Your task to perform on an android device: remove spam from my inbox in the gmail app Image 0: 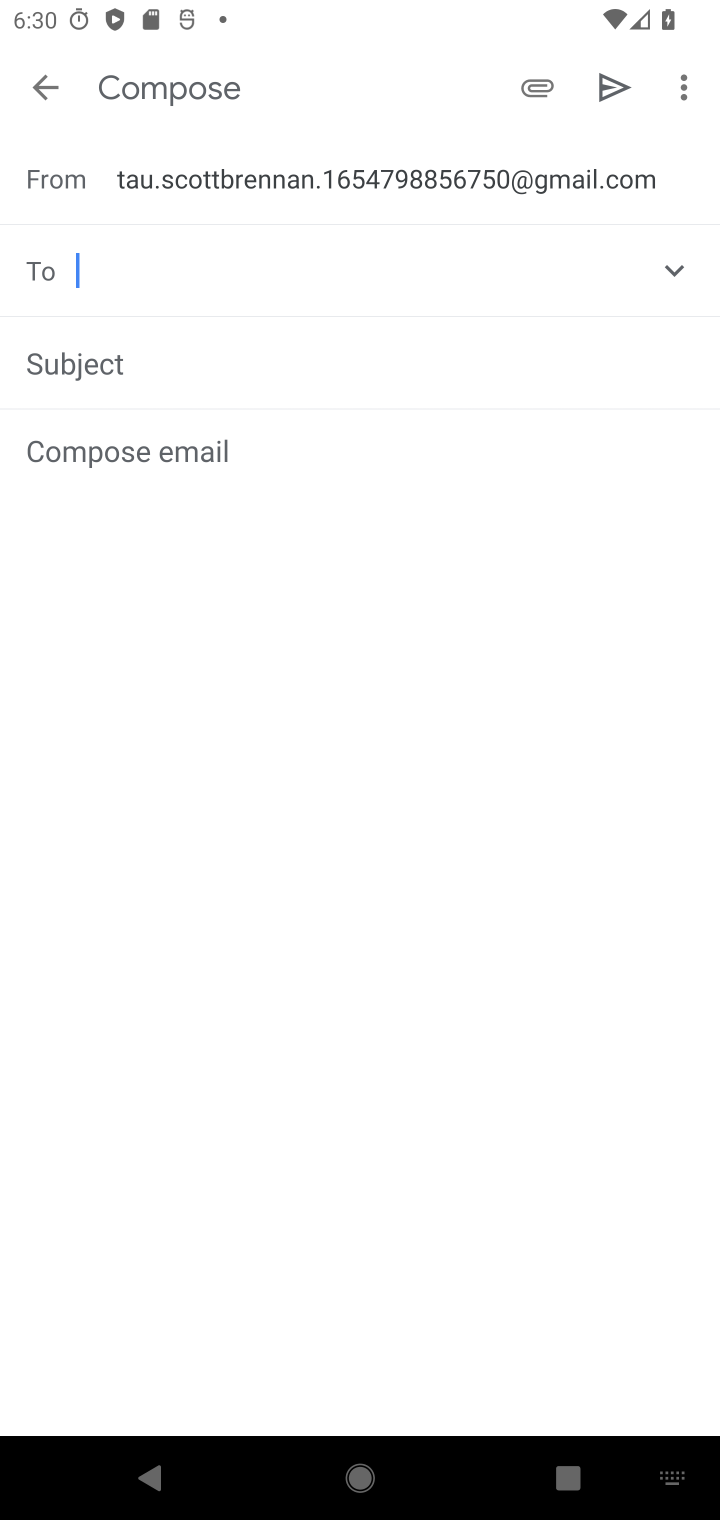
Step 0: press home button
Your task to perform on an android device: remove spam from my inbox in the gmail app Image 1: 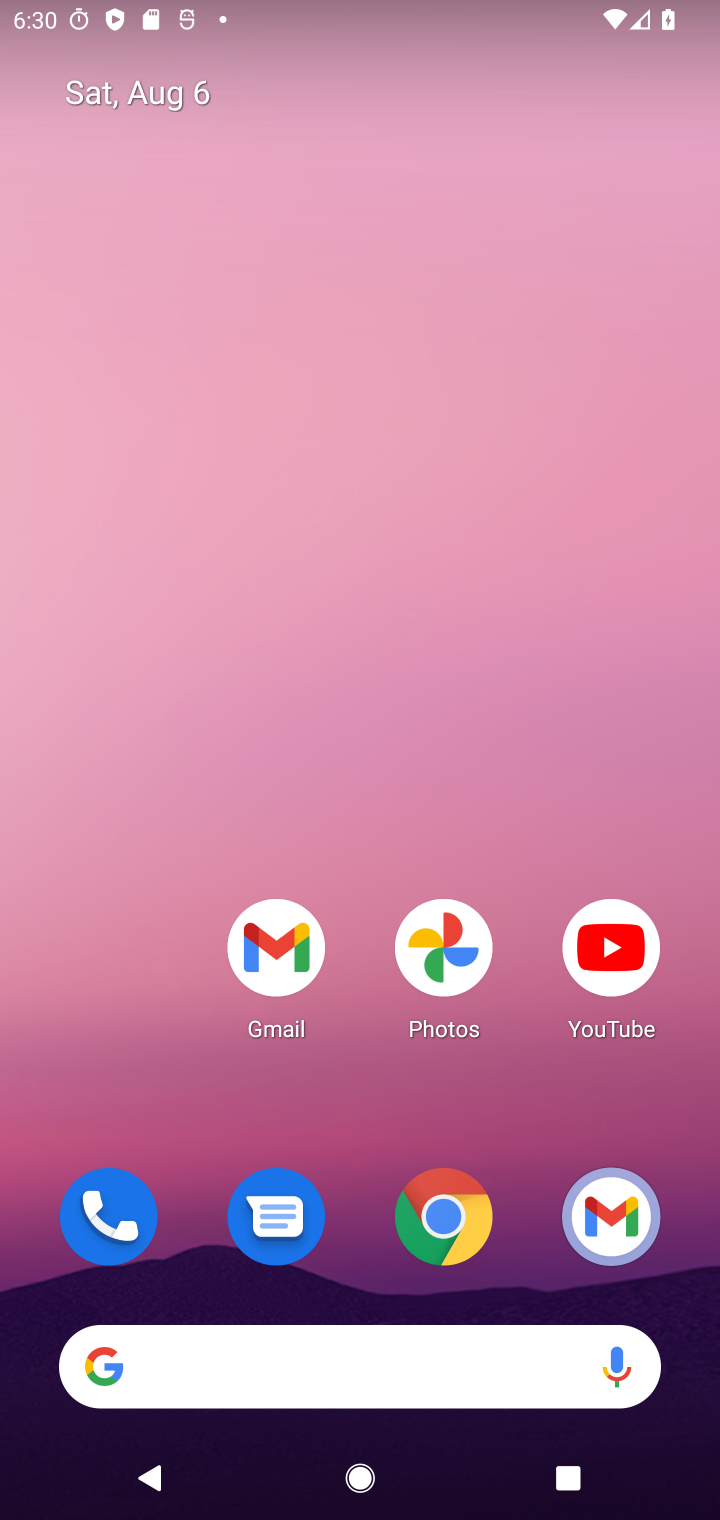
Step 1: drag from (380, 1115) to (365, 242)
Your task to perform on an android device: remove spam from my inbox in the gmail app Image 2: 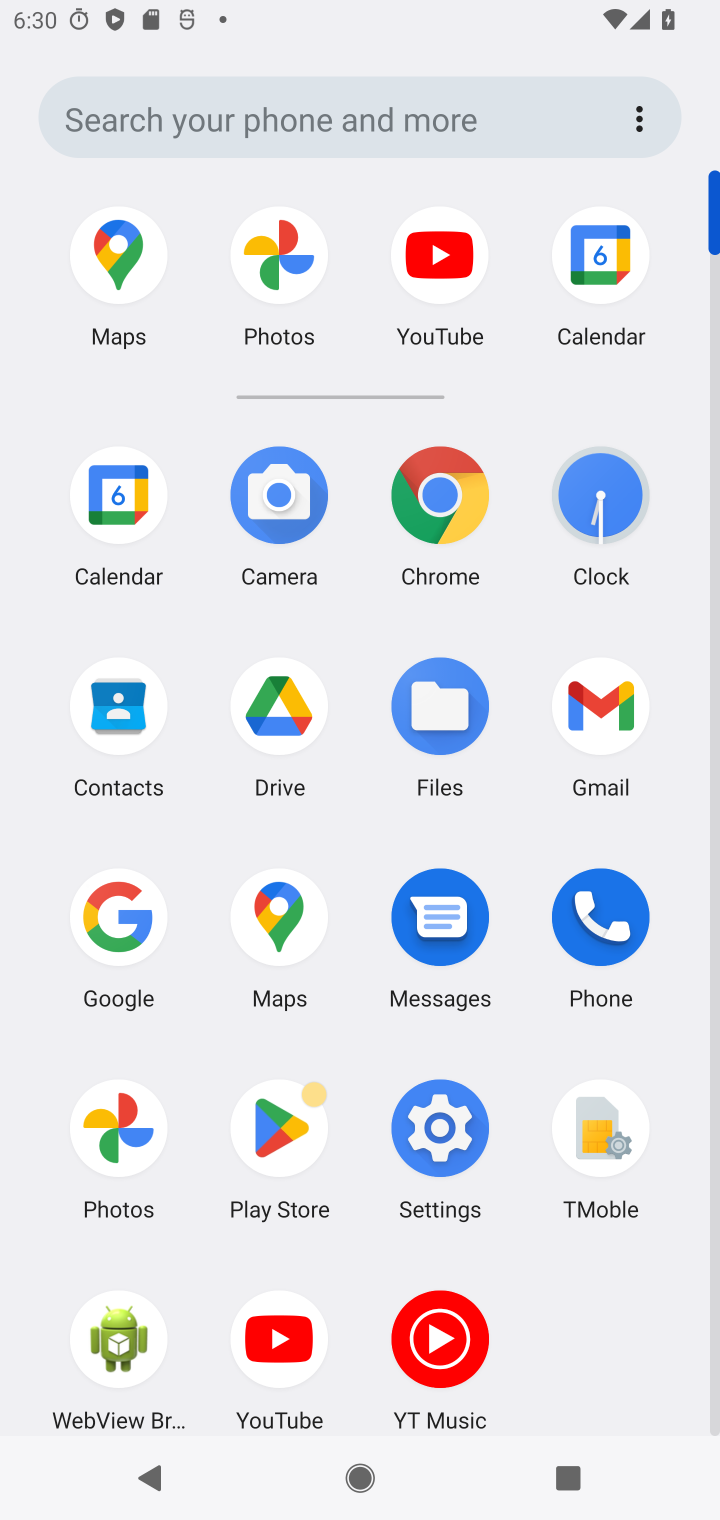
Step 2: click (591, 676)
Your task to perform on an android device: remove spam from my inbox in the gmail app Image 3: 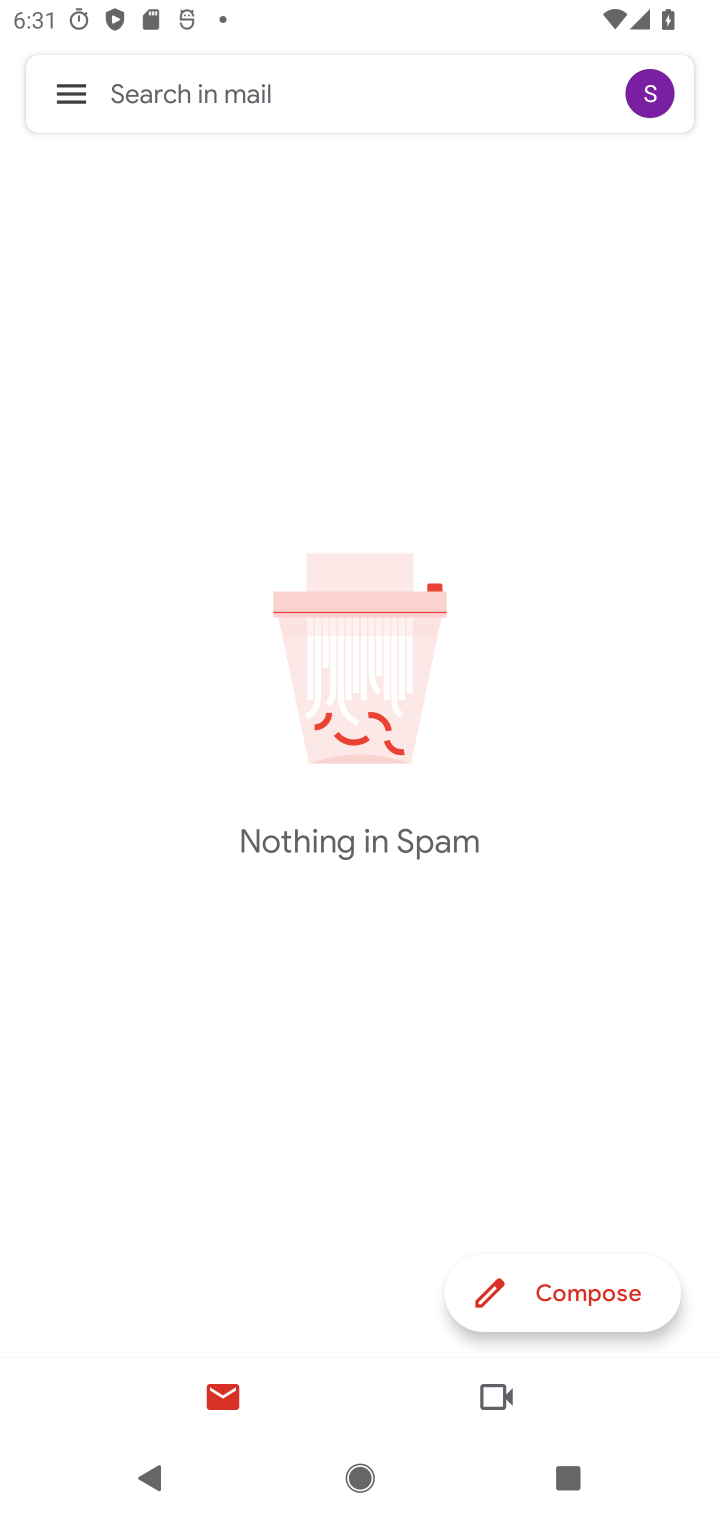
Step 3: task complete